Your task to perform on an android device: toggle data saver in the chrome app Image 0: 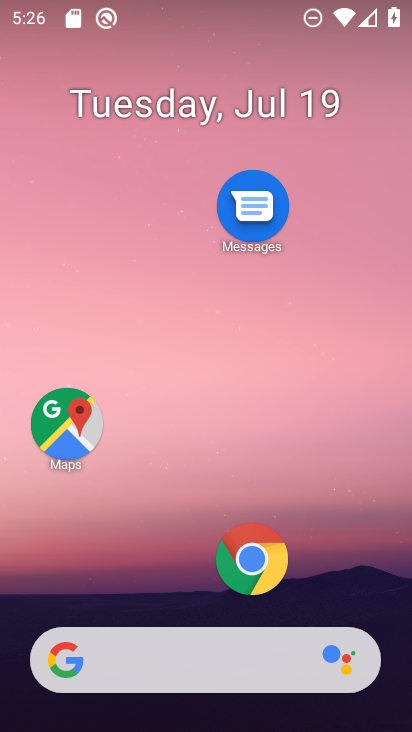
Step 0: click (260, 551)
Your task to perform on an android device: toggle data saver in the chrome app Image 1: 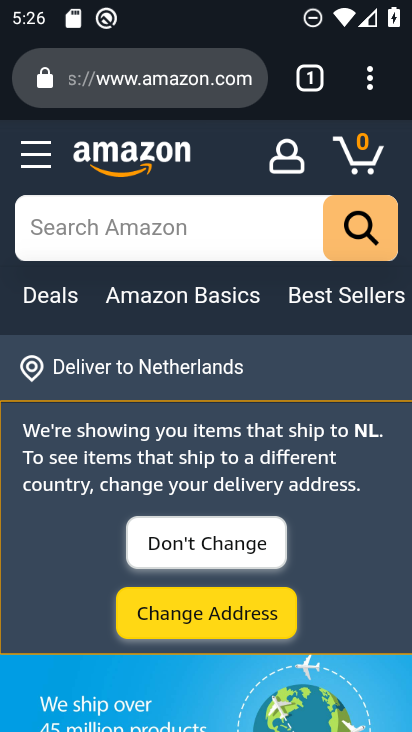
Step 1: drag from (370, 71) to (90, 617)
Your task to perform on an android device: toggle data saver in the chrome app Image 2: 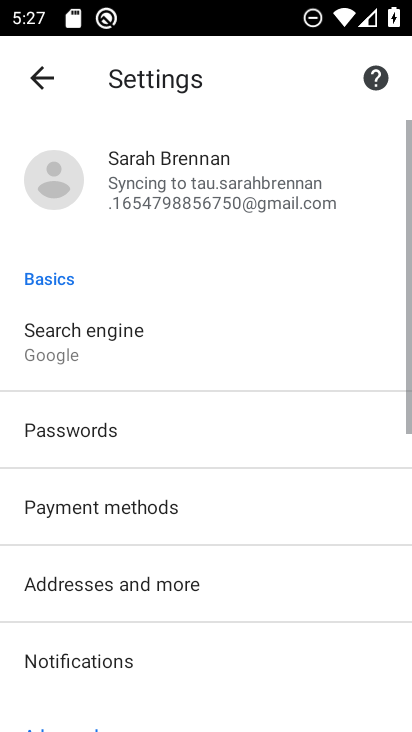
Step 2: drag from (136, 663) to (232, 59)
Your task to perform on an android device: toggle data saver in the chrome app Image 3: 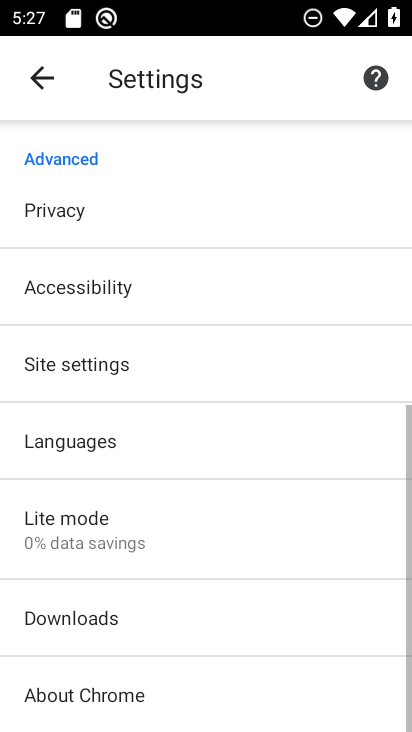
Step 3: click (104, 528)
Your task to perform on an android device: toggle data saver in the chrome app Image 4: 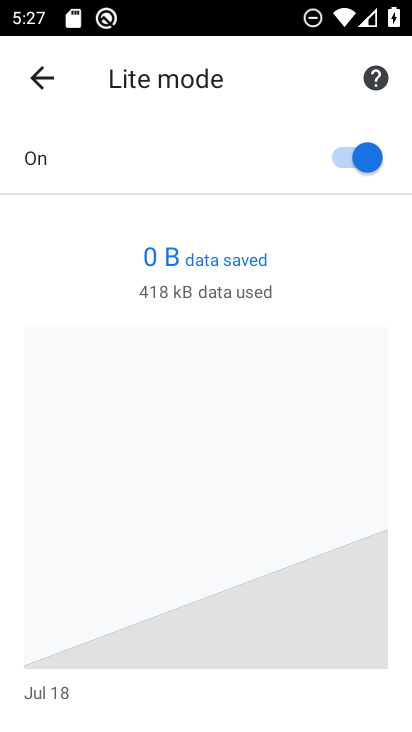
Step 4: click (361, 159)
Your task to perform on an android device: toggle data saver in the chrome app Image 5: 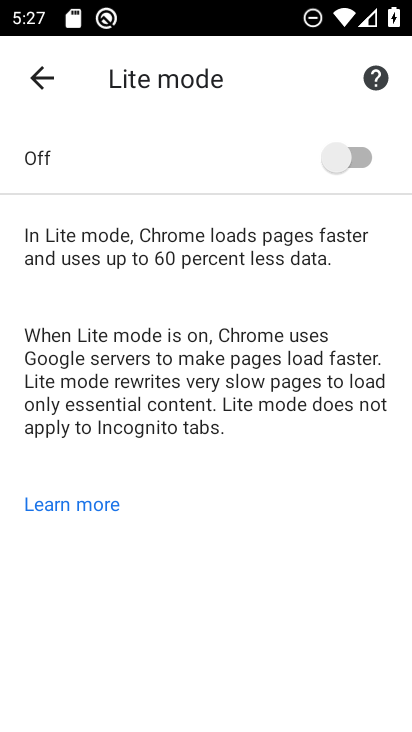
Step 5: task complete